Your task to perform on an android device: Open my contact list Image 0: 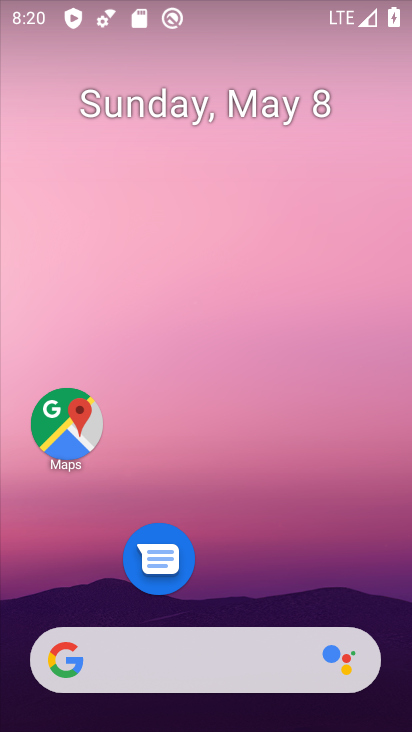
Step 0: drag from (266, 628) to (318, 31)
Your task to perform on an android device: Open my contact list Image 1: 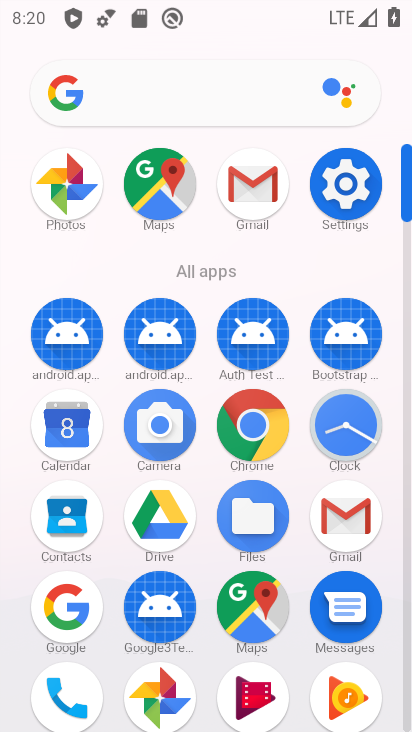
Step 1: drag from (311, 655) to (291, 439)
Your task to perform on an android device: Open my contact list Image 2: 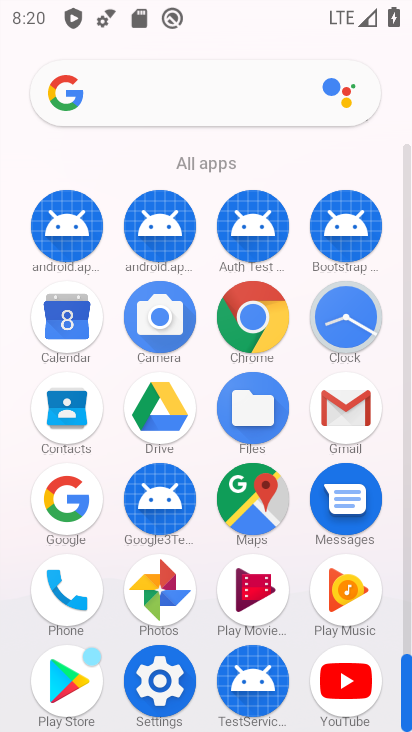
Step 2: click (63, 413)
Your task to perform on an android device: Open my contact list Image 3: 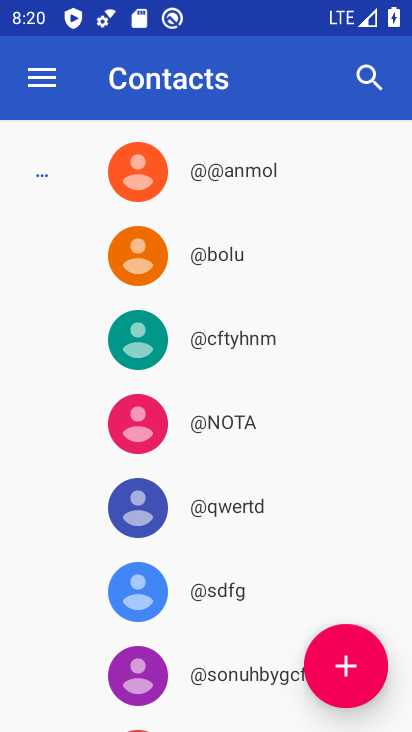
Step 3: task complete